Your task to perform on an android device: open app "PUBG MOBILE" (install if not already installed) and enter user name: "phenomenologically@gmail.com" and password: "artillery" Image 0: 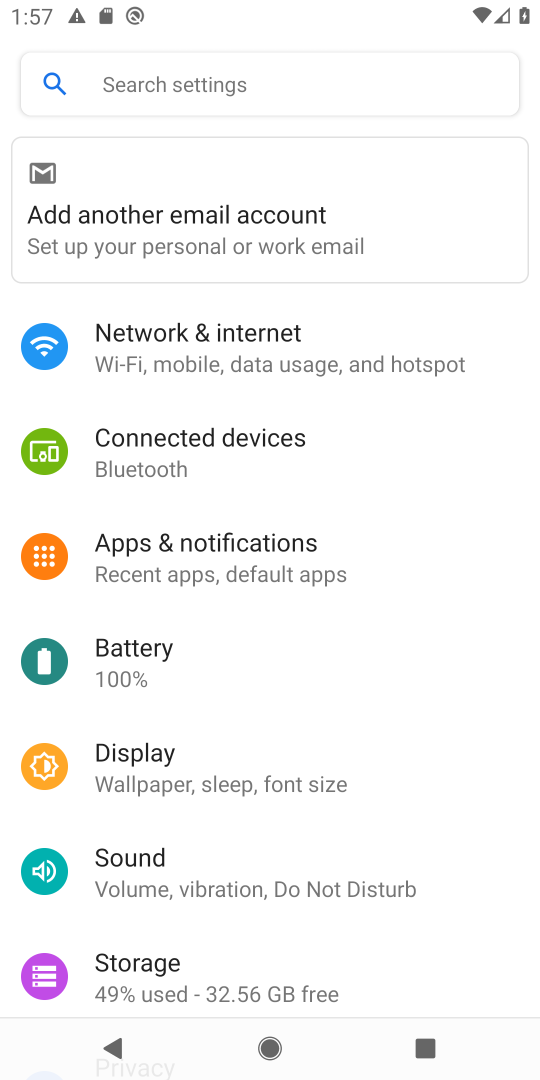
Step 0: press home button
Your task to perform on an android device: open app "PUBG MOBILE" (install if not already installed) and enter user name: "phenomenologically@gmail.com" and password: "artillery" Image 1: 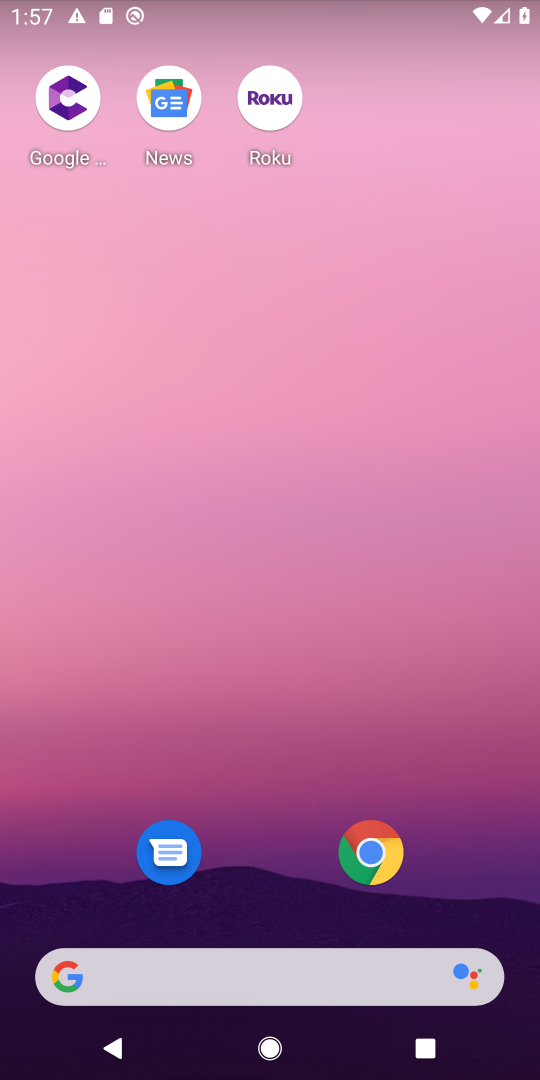
Step 1: drag from (271, 894) to (228, 146)
Your task to perform on an android device: open app "PUBG MOBILE" (install if not already installed) and enter user name: "phenomenologically@gmail.com" and password: "artillery" Image 2: 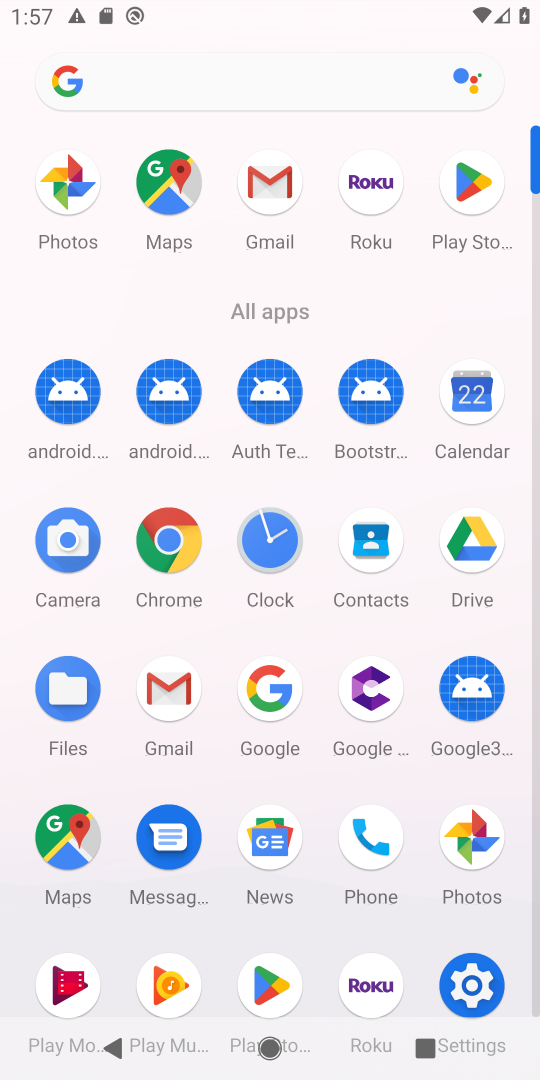
Step 2: click (466, 180)
Your task to perform on an android device: open app "PUBG MOBILE" (install if not already installed) and enter user name: "phenomenologically@gmail.com" and password: "artillery" Image 3: 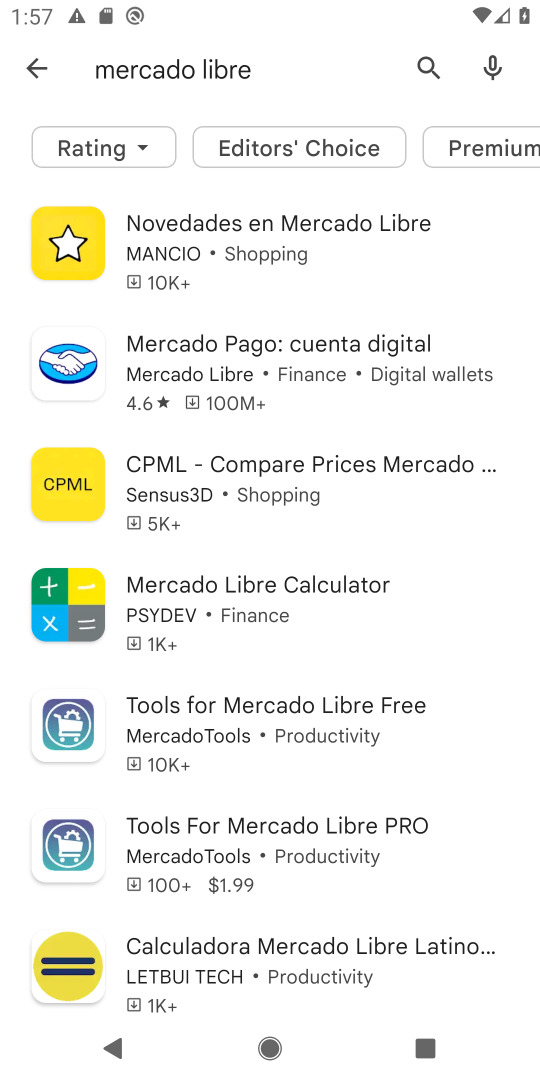
Step 3: click (426, 62)
Your task to perform on an android device: open app "PUBG MOBILE" (install if not already installed) and enter user name: "phenomenologically@gmail.com" and password: "artillery" Image 4: 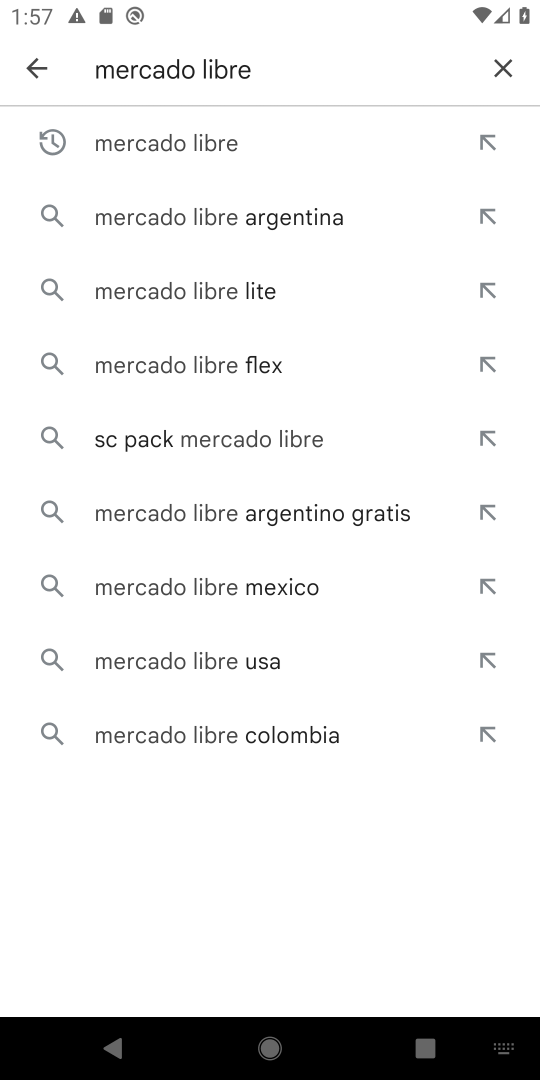
Step 4: click (503, 64)
Your task to perform on an android device: open app "PUBG MOBILE" (install if not already installed) and enter user name: "phenomenologically@gmail.com" and password: "artillery" Image 5: 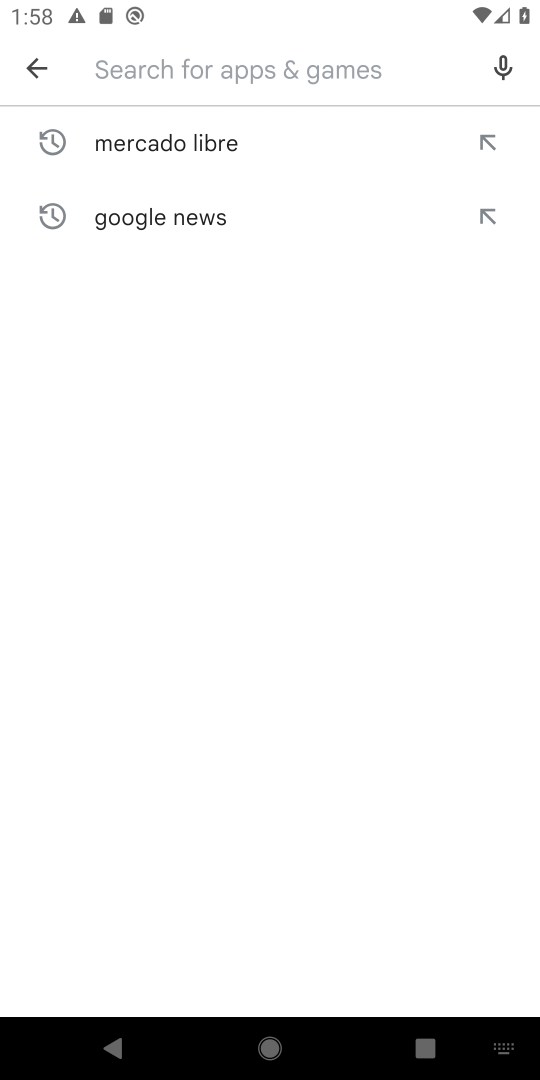
Step 5: type "PIBG MOBILE"
Your task to perform on an android device: open app "PUBG MOBILE" (install if not already installed) and enter user name: "phenomenologically@gmail.com" and password: "artillery" Image 6: 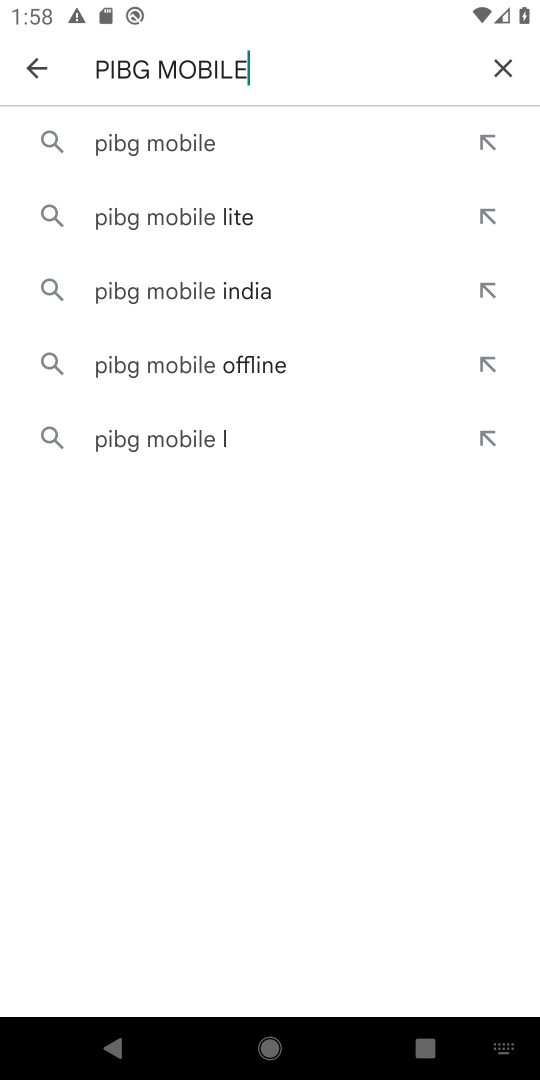
Step 6: click (169, 143)
Your task to perform on an android device: open app "PUBG MOBILE" (install if not already installed) and enter user name: "phenomenologically@gmail.com" and password: "artillery" Image 7: 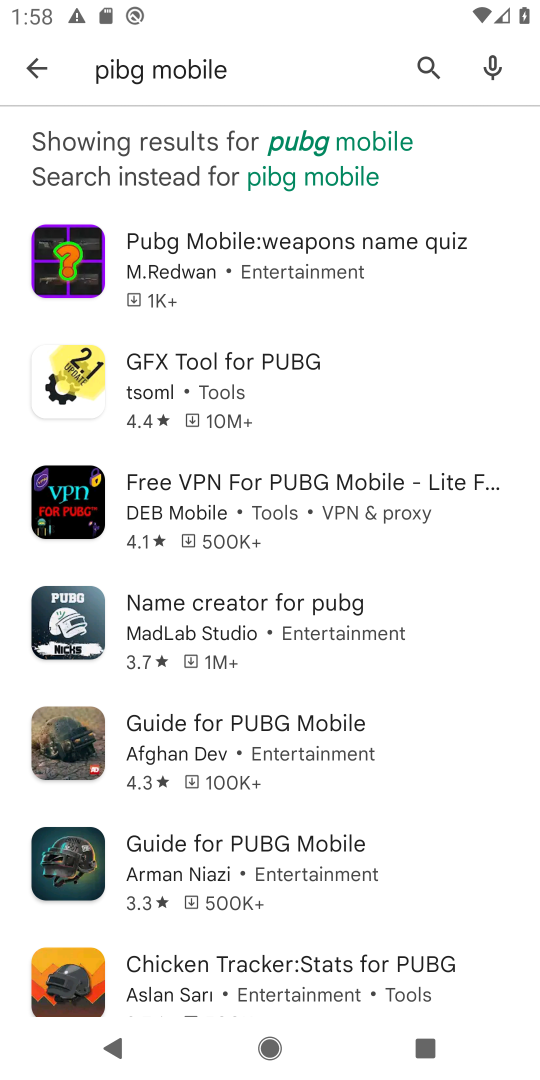
Step 7: click (344, 137)
Your task to perform on an android device: open app "PUBG MOBILE" (install if not already installed) and enter user name: "phenomenologically@gmail.com" and password: "artillery" Image 8: 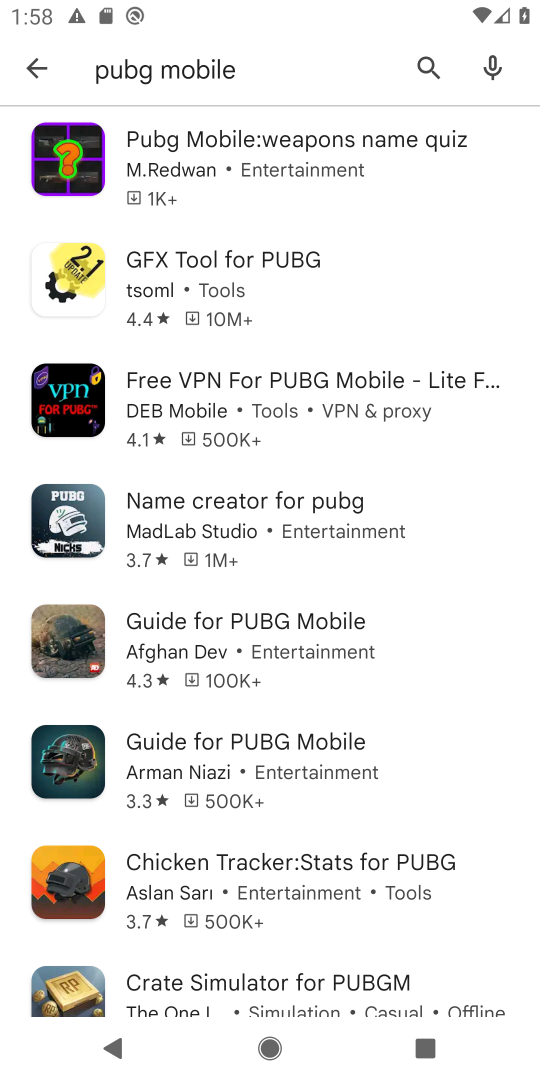
Step 8: task complete